Your task to perform on an android device: Open privacy settings Image 0: 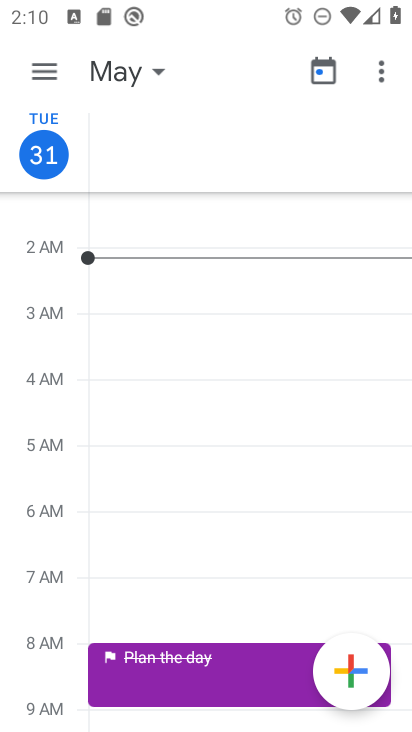
Step 0: press home button
Your task to perform on an android device: Open privacy settings Image 1: 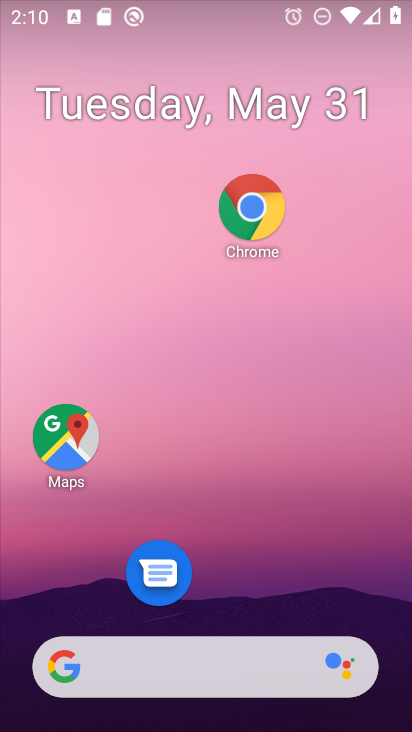
Step 1: drag from (230, 630) to (231, 144)
Your task to perform on an android device: Open privacy settings Image 2: 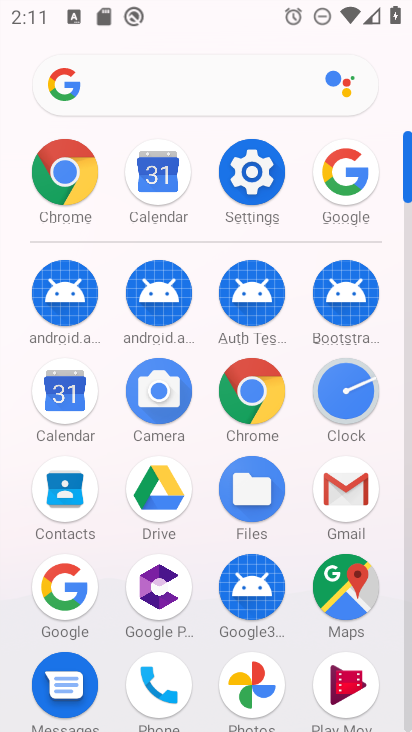
Step 2: click (248, 196)
Your task to perform on an android device: Open privacy settings Image 3: 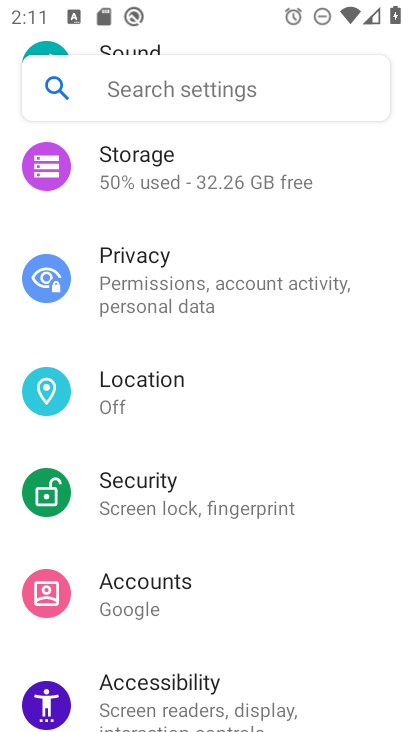
Step 3: drag from (200, 559) to (193, 326)
Your task to perform on an android device: Open privacy settings Image 4: 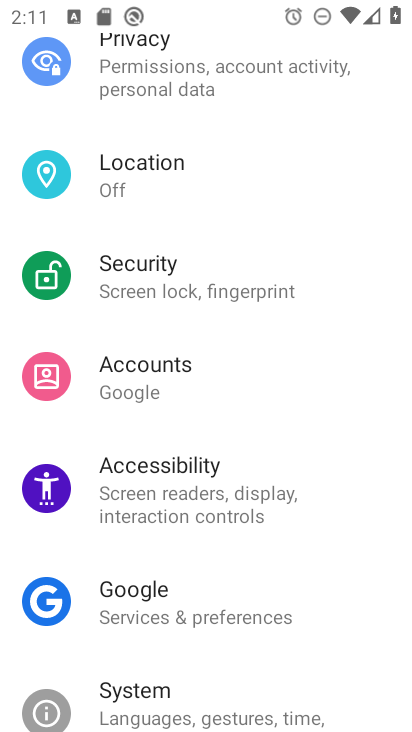
Step 4: click (207, 74)
Your task to perform on an android device: Open privacy settings Image 5: 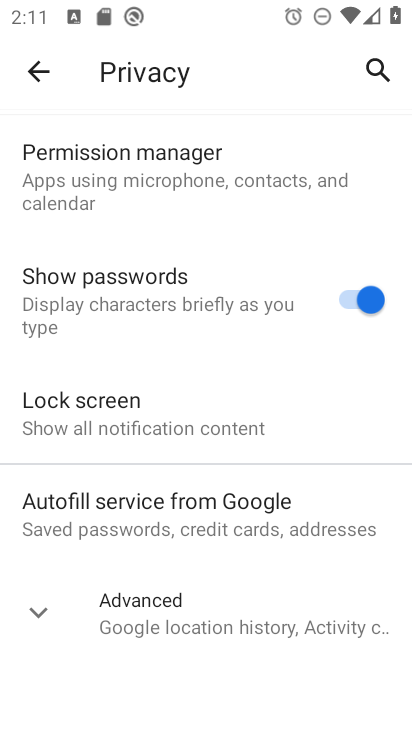
Step 5: task complete